Your task to perform on an android device: Go to location settings Image 0: 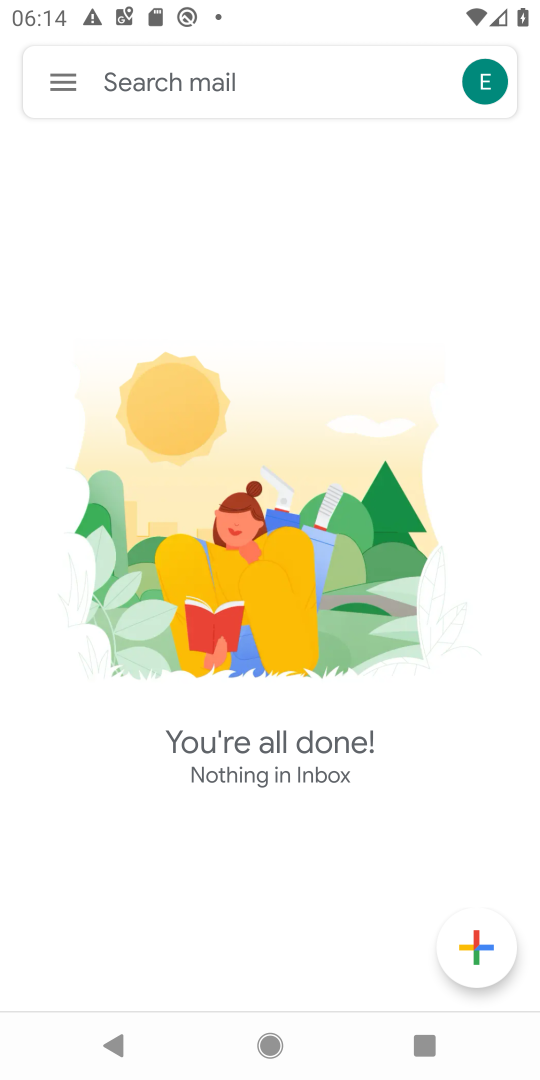
Step 0: press home button
Your task to perform on an android device: Go to location settings Image 1: 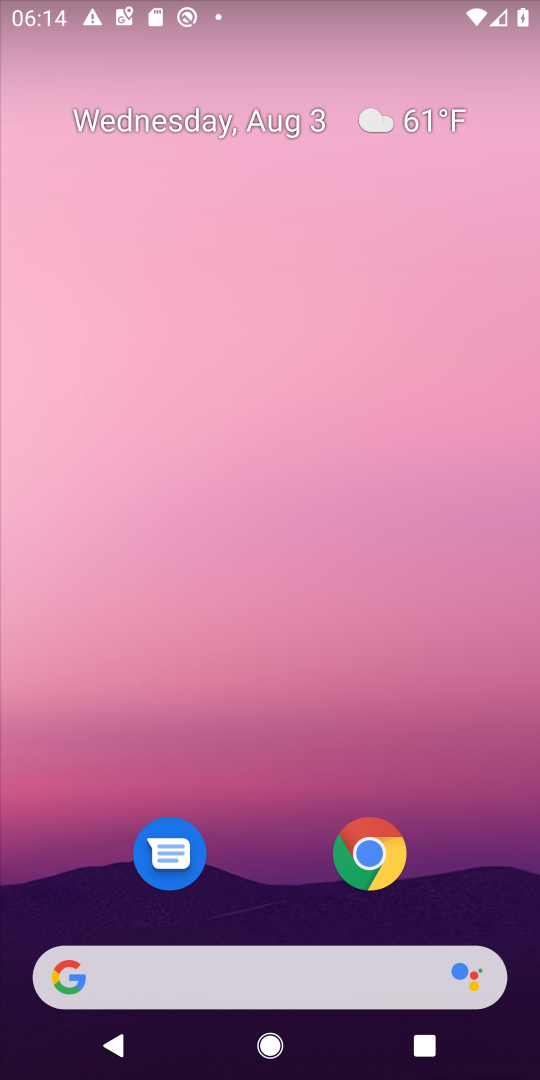
Step 1: drag from (325, 1062) to (325, 73)
Your task to perform on an android device: Go to location settings Image 2: 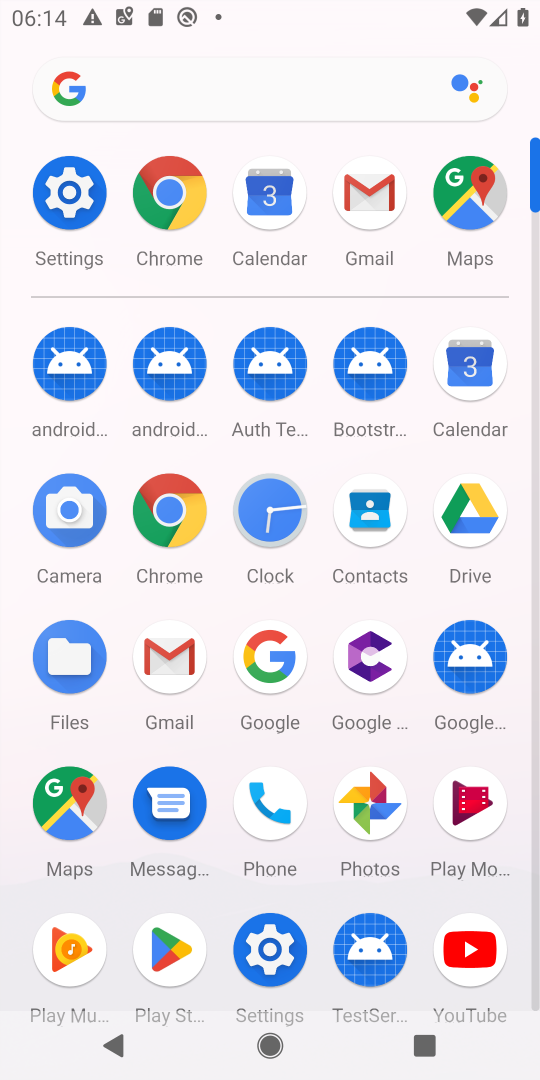
Step 2: click (61, 191)
Your task to perform on an android device: Go to location settings Image 3: 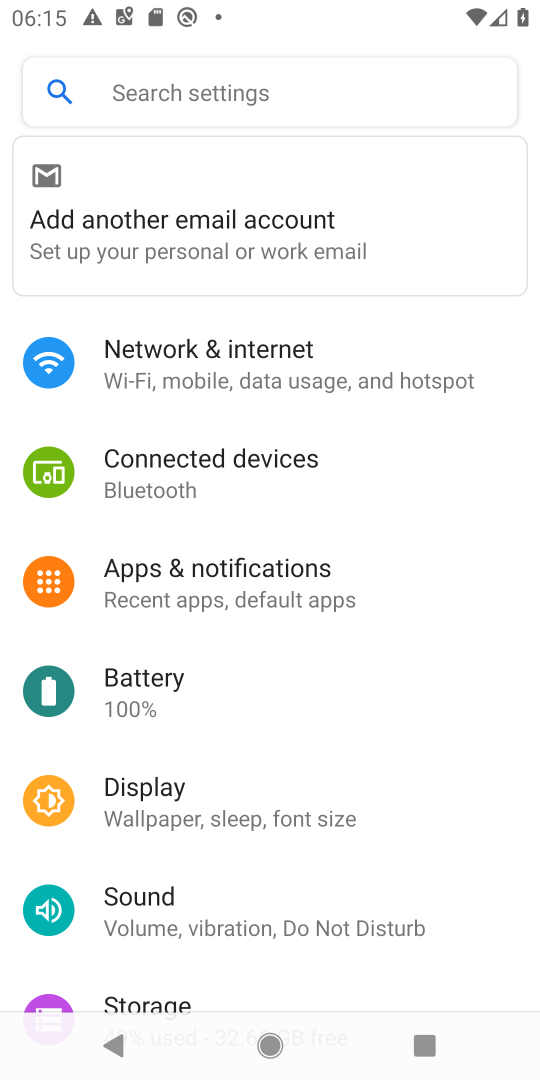
Step 3: drag from (182, 839) to (182, 332)
Your task to perform on an android device: Go to location settings Image 4: 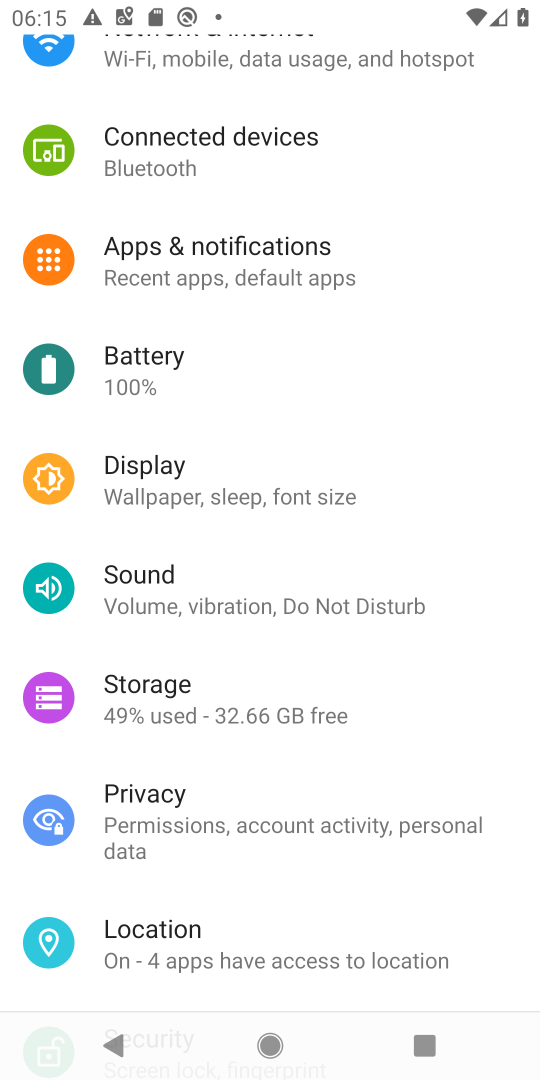
Step 4: click (195, 941)
Your task to perform on an android device: Go to location settings Image 5: 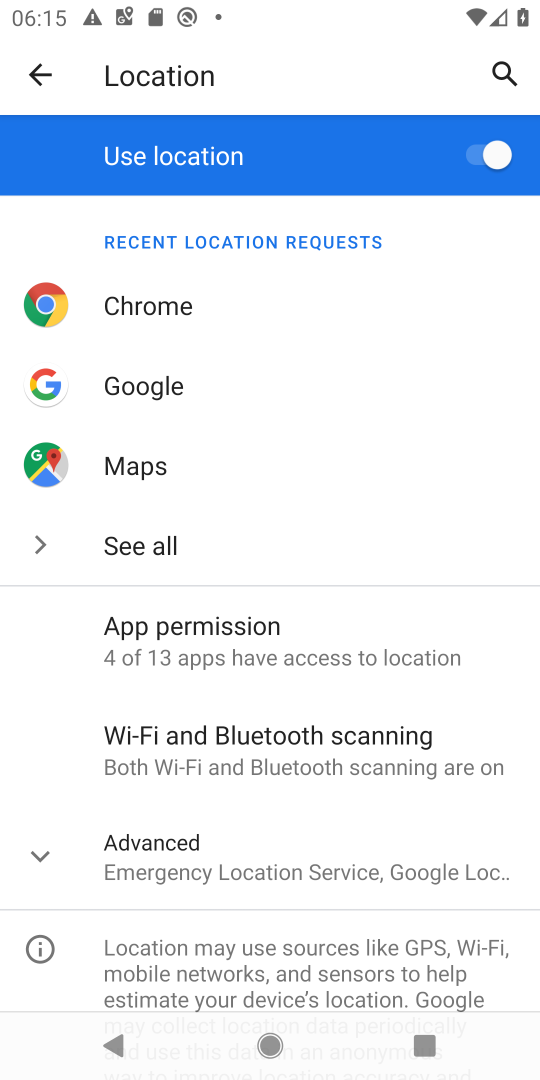
Step 5: task complete